Your task to perform on an android device: check data usage Image 0: 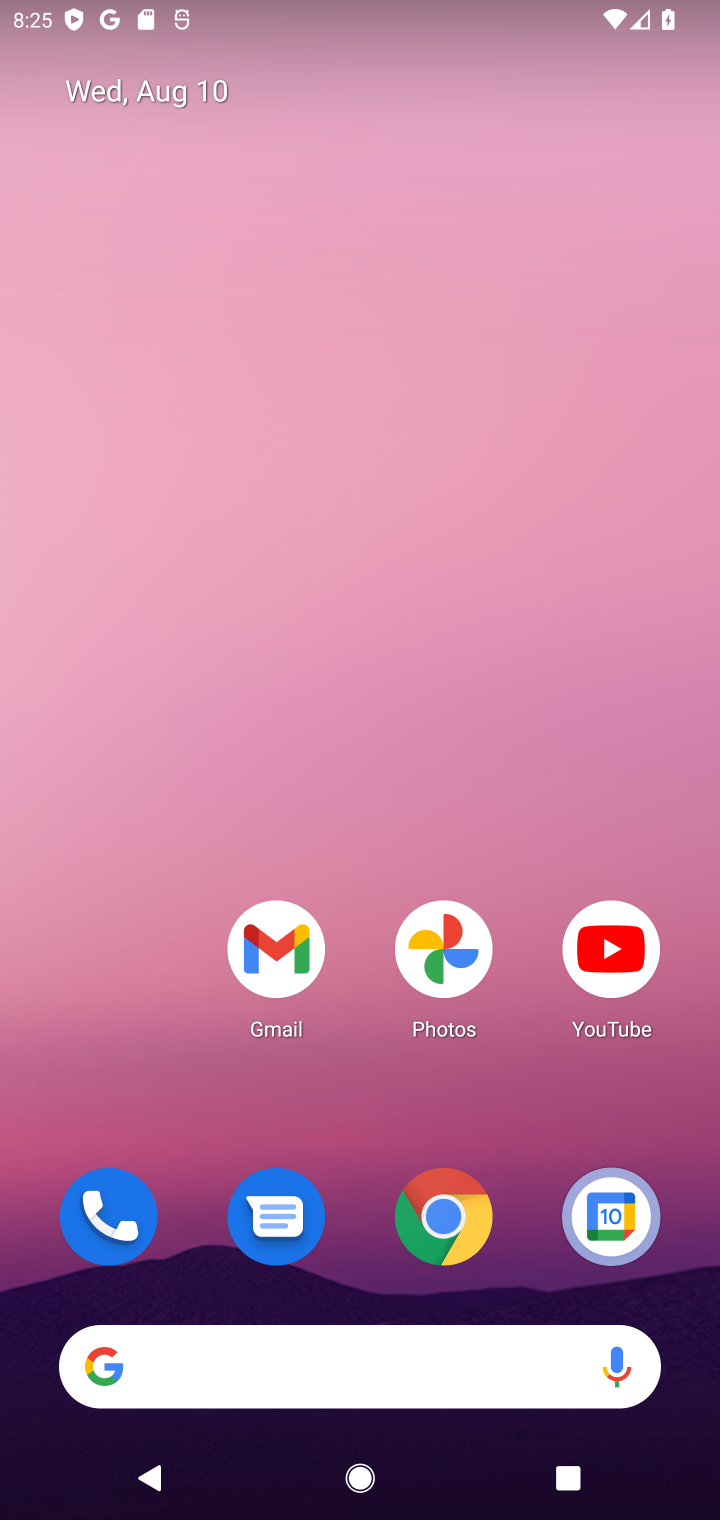
Step 0: drag from (28, 1450) to (490, 282)
Your task to perform on an android device: check data usage Image 1: 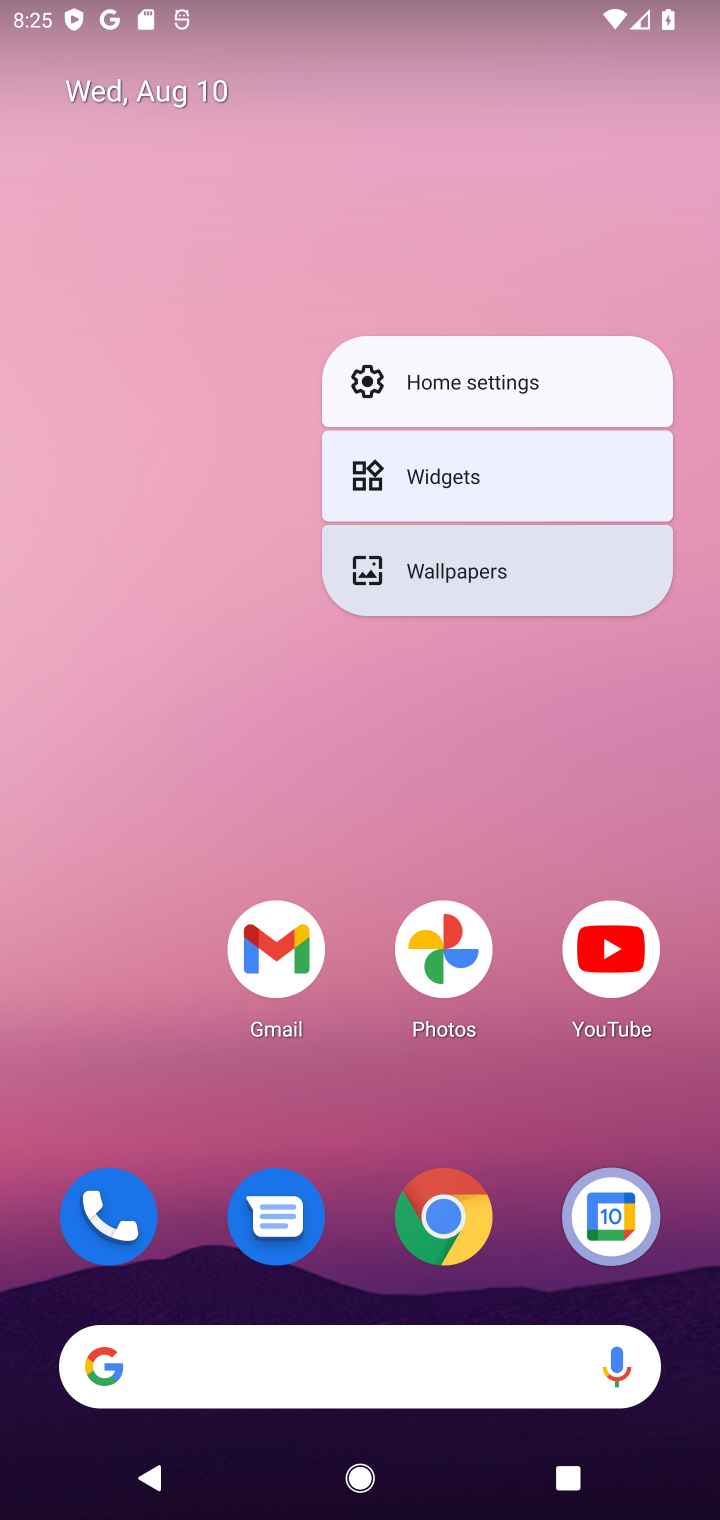
Step 1: drag from (187, 570) to (268, 228)
Your task to perform on an android device: check data usage Image 2: 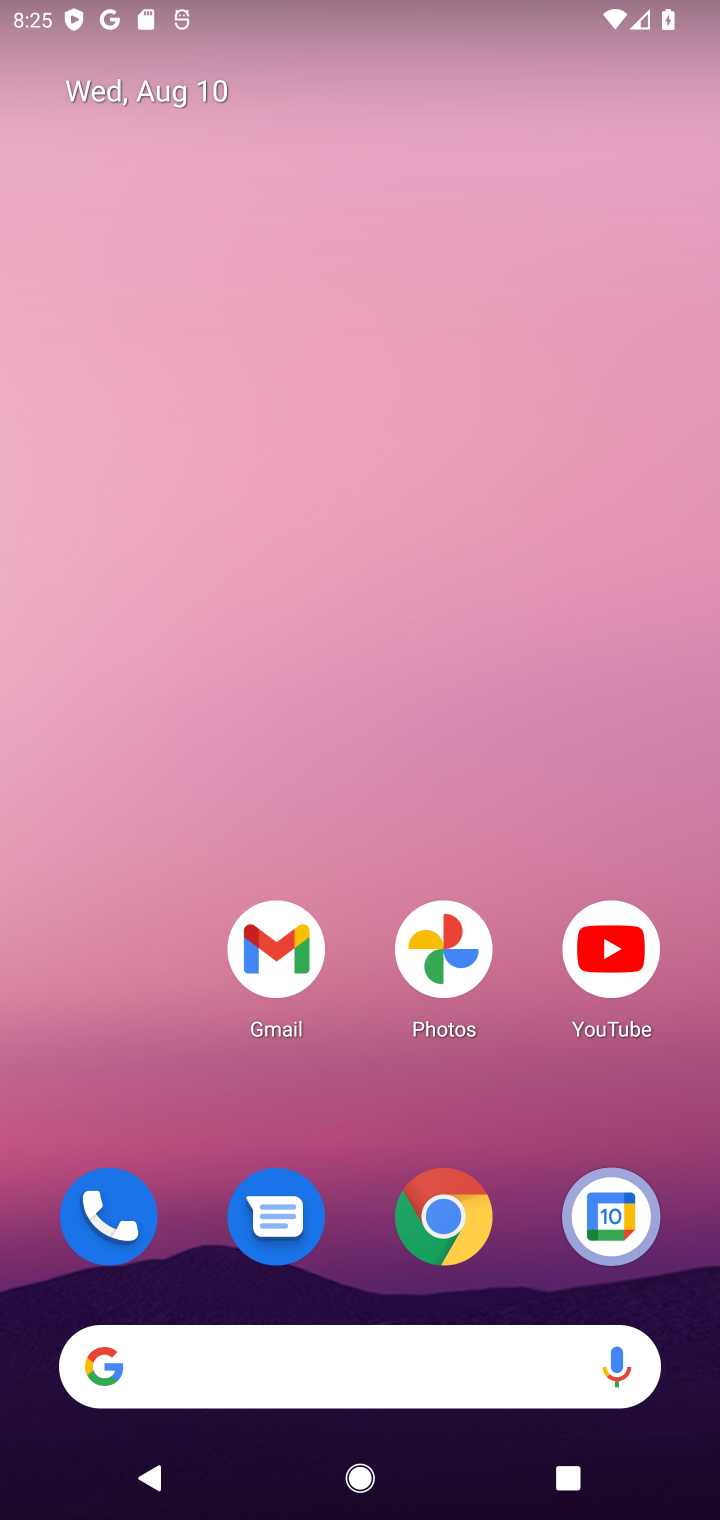
Step 2: drag from (30, 1197) to (359, 248)
Your task to perform on an android device: check data usage Image 3: 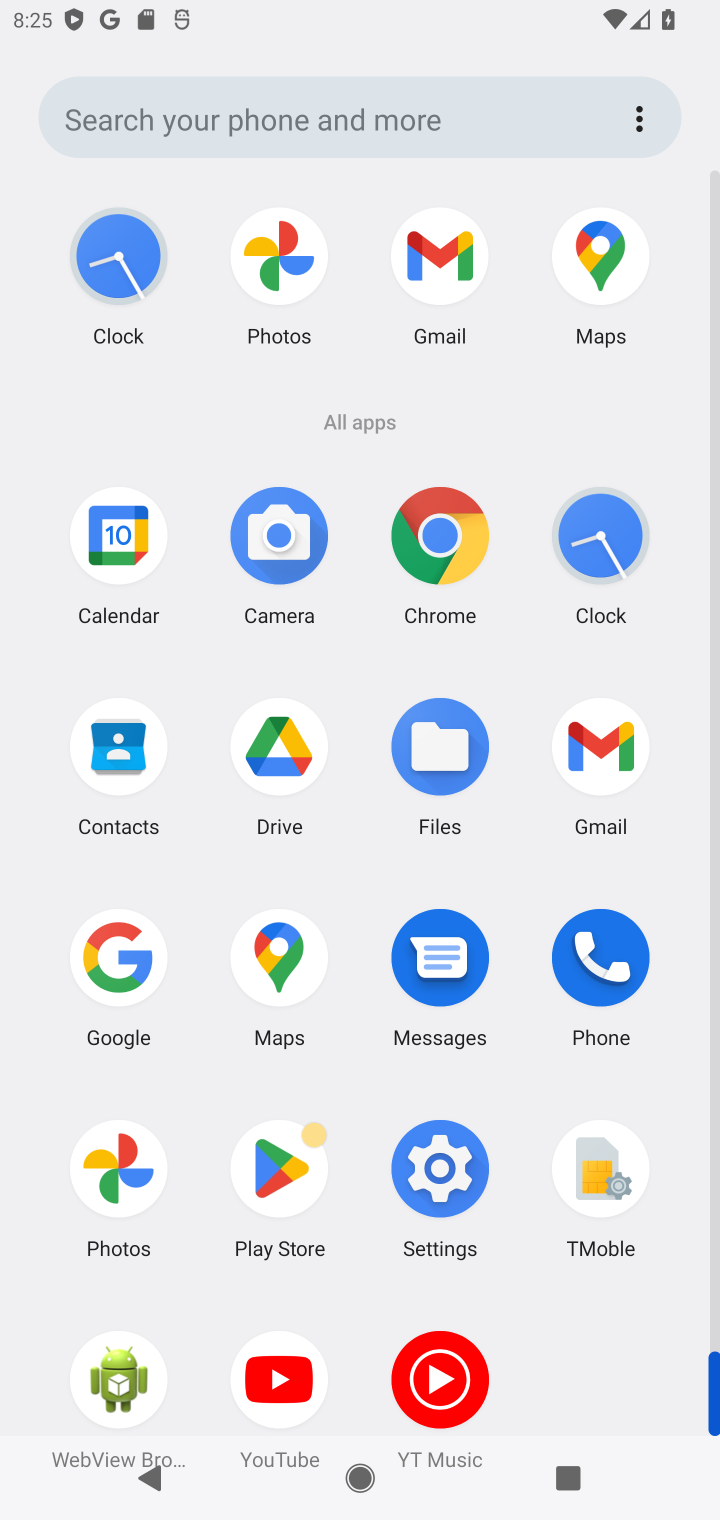
Step 3: click (419, 1170)
Your task to perform on an android device: check data usage Image 4: 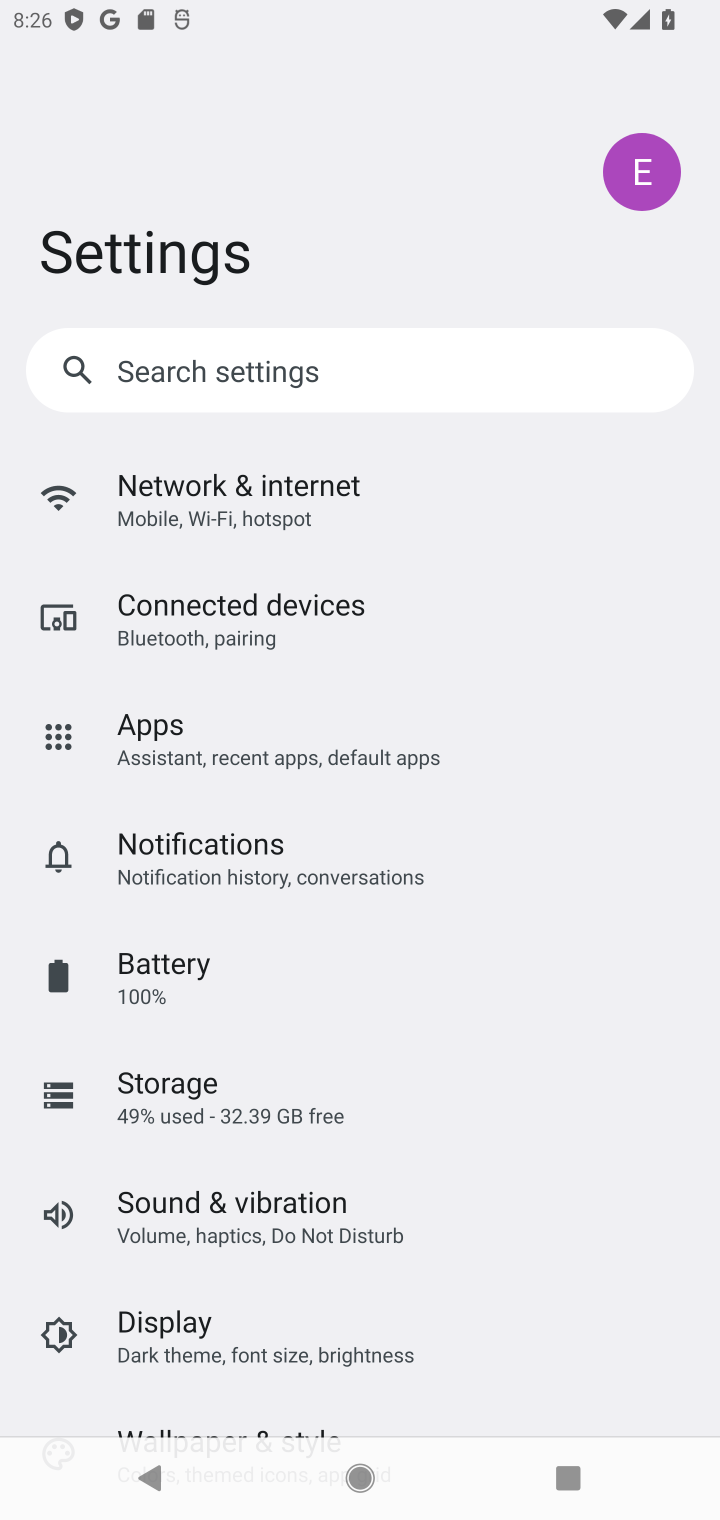
Step 4: click (169, 529)
Your task to perform on an android device: check data usage Image 5: 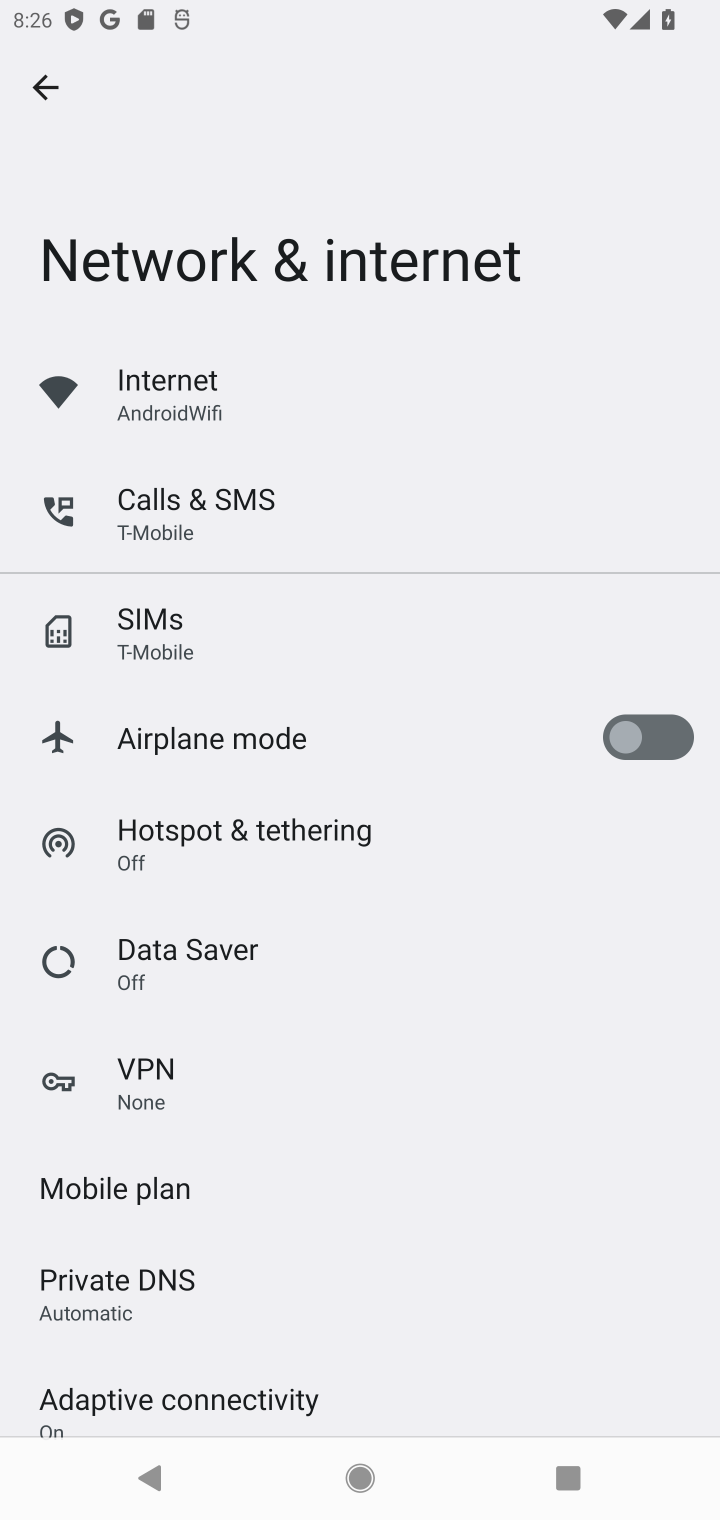
Step 5: click (219, 382)
Your task to perform on an android device: check data usage Image 6: 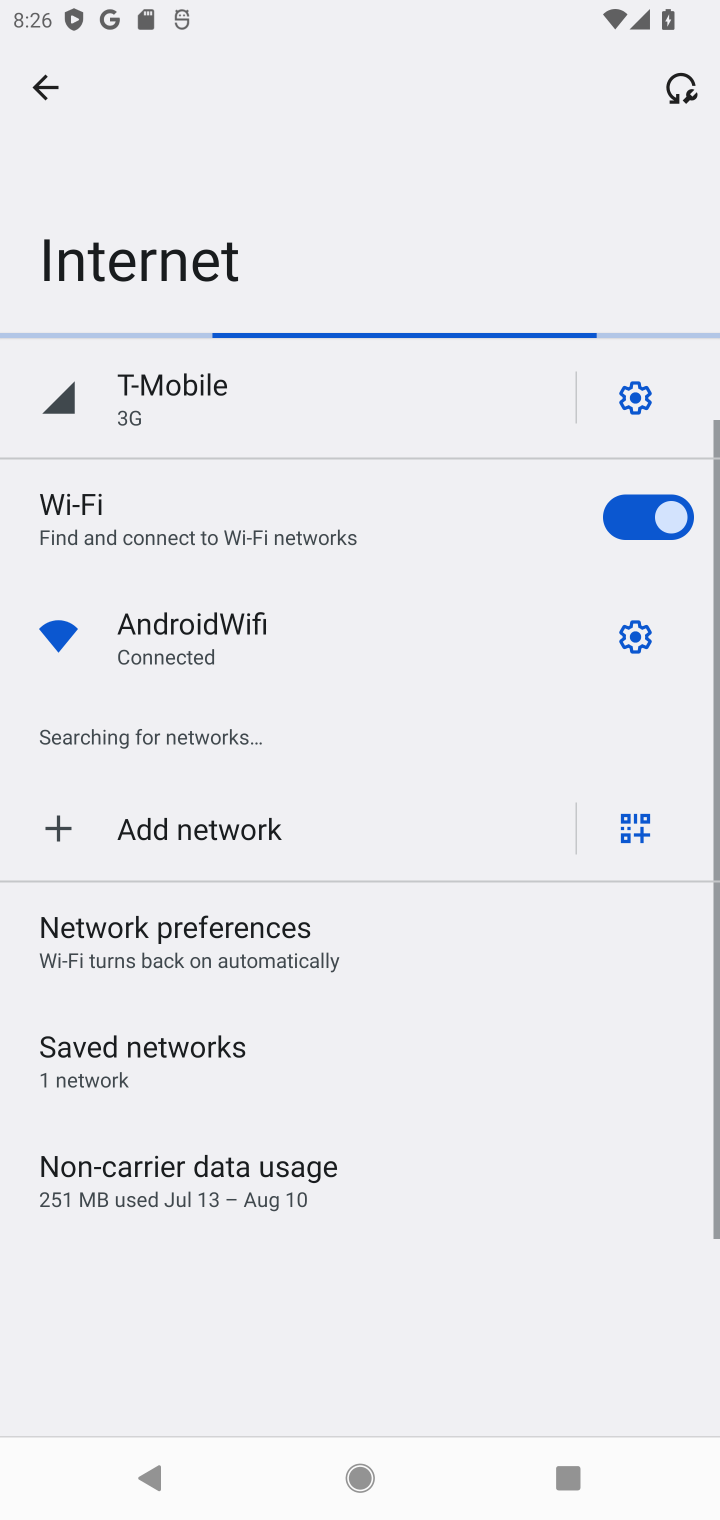
Step 6: task complete